Your task to perform on an android device: make emails show in primary in the gmail app Image 0: 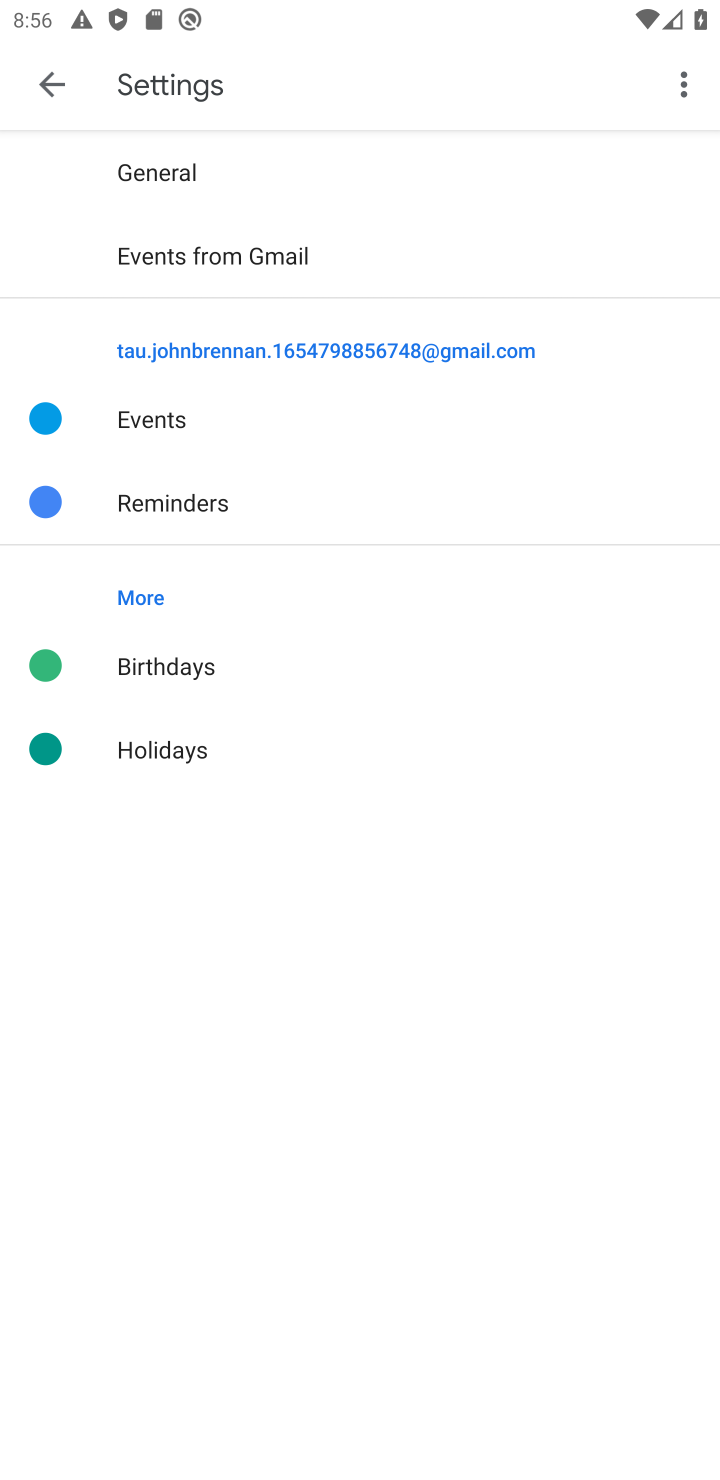
Step 0: press home button
Your task to perform on an android device: make emails show in primary in the gmail app Image 1: 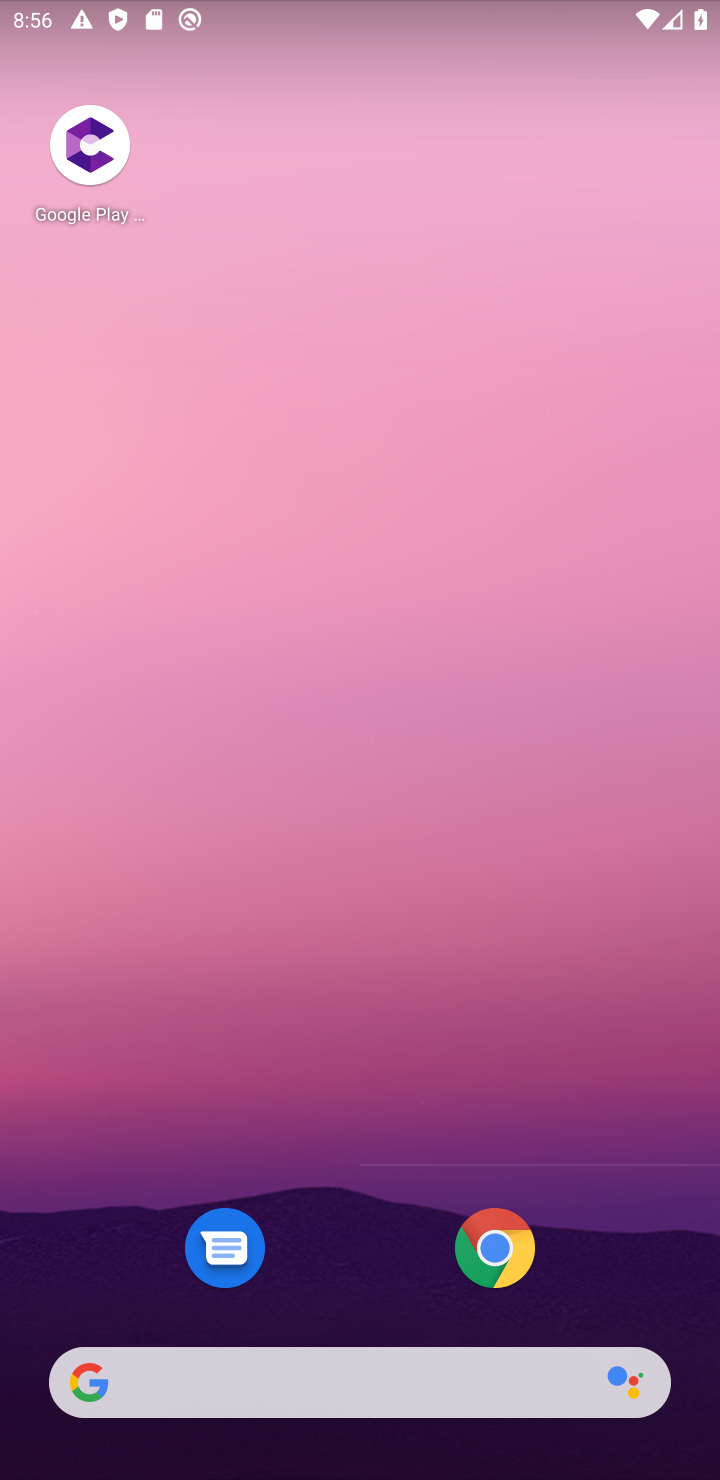
Step 1: click (282, 492)
Your task to perform on an android device: make emails show in primary in the gmail app Image 2: 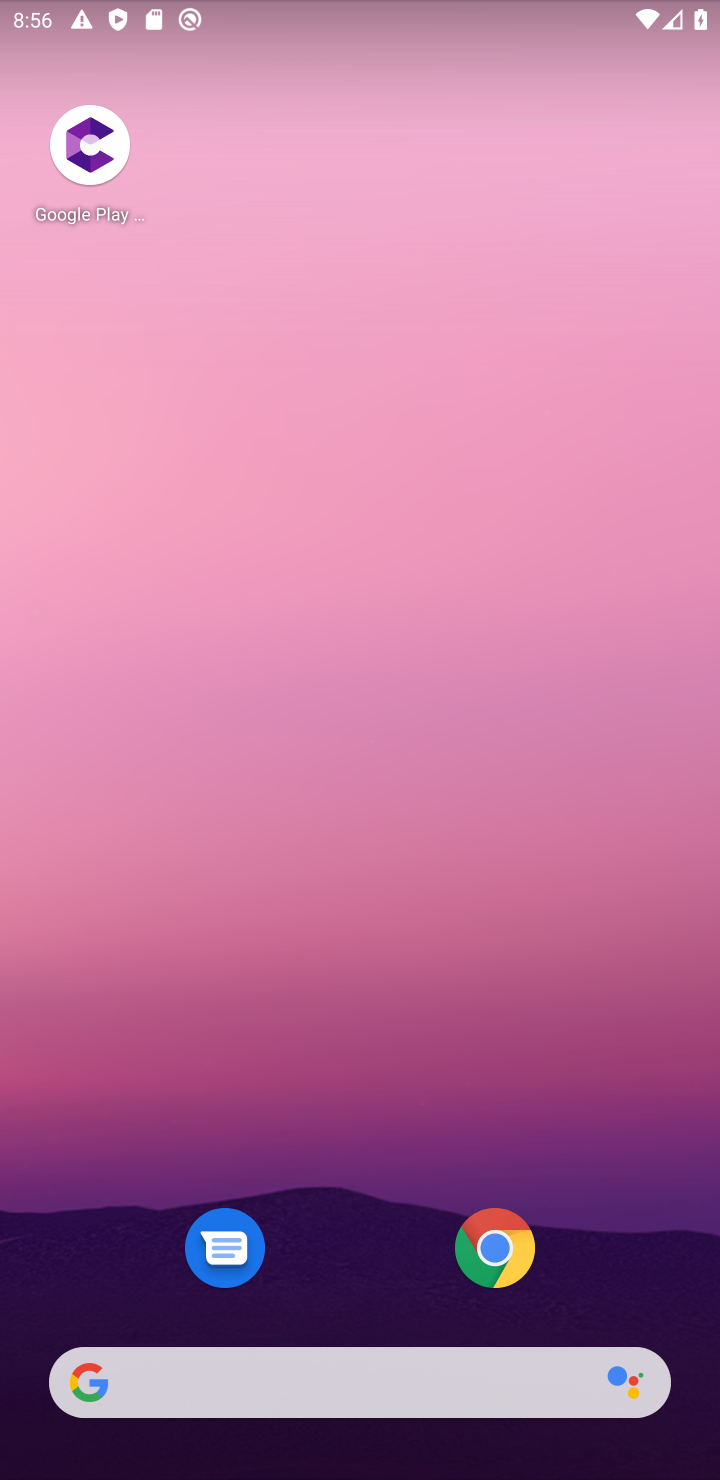
Step 2: drag from (290, 1330) to (290, 350)
Your task to perform on an android device: make emails show in primary in the gmail app Image 3: 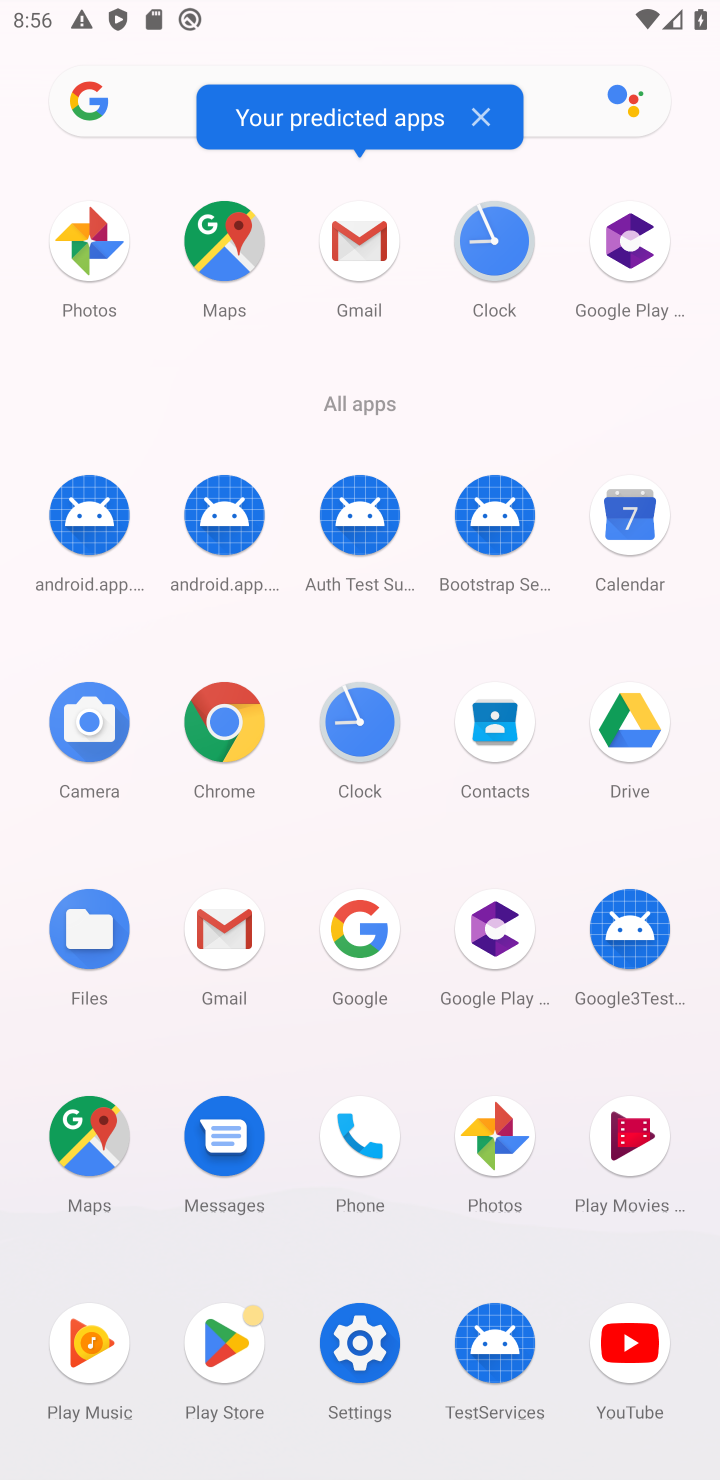
Step 3: click (359, 242)
Your task to perform on an android device: make emails show in primary in the gmail app Image 4: 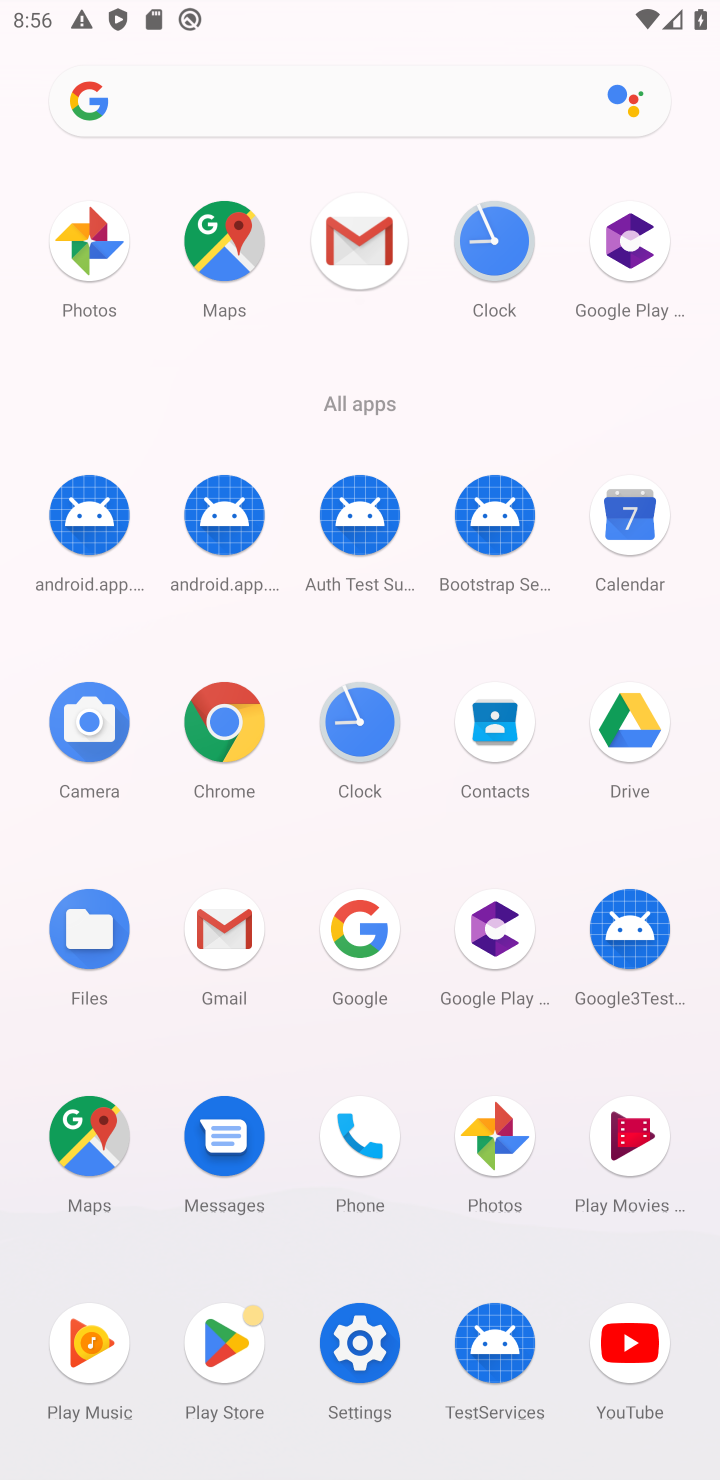
Step 4: click (359, 242)
Your task to perform on an android device: make emails show in primary in the gmail app Image 5: 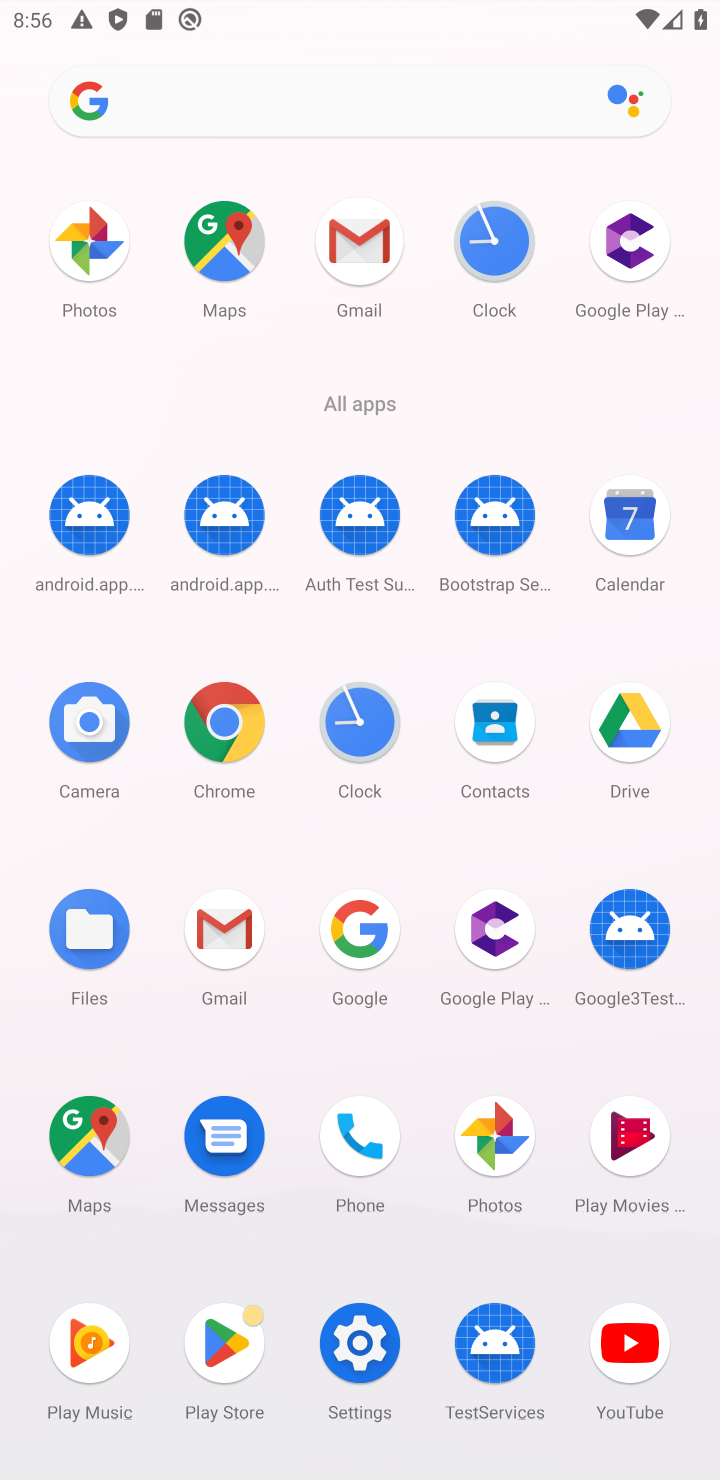
Step 5: click (359, 250)
Your task to perform on an android device: make emails show in primary in the gmail app Image 6: 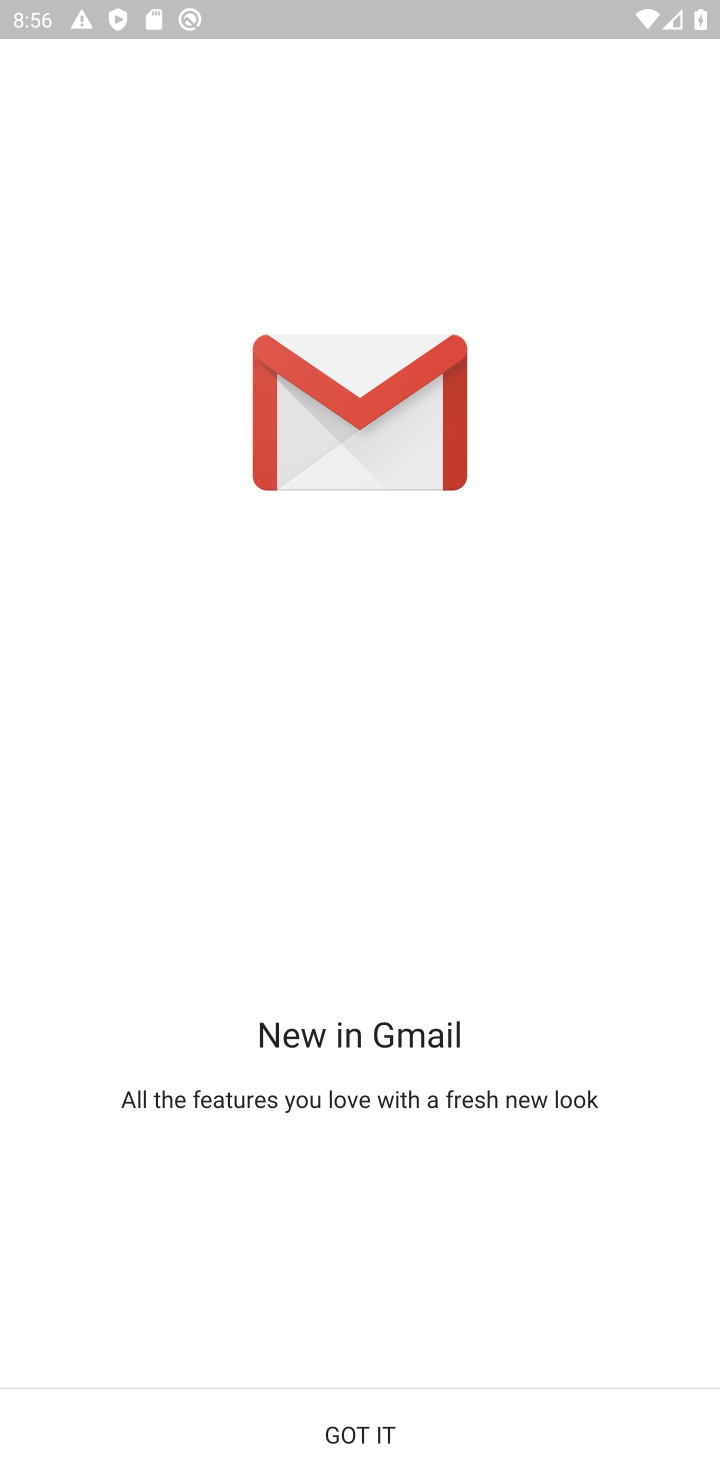
Step 6: click (301, 1472)
Your task to perform on an android device: make emails show in primary in the gmail app Image 7: 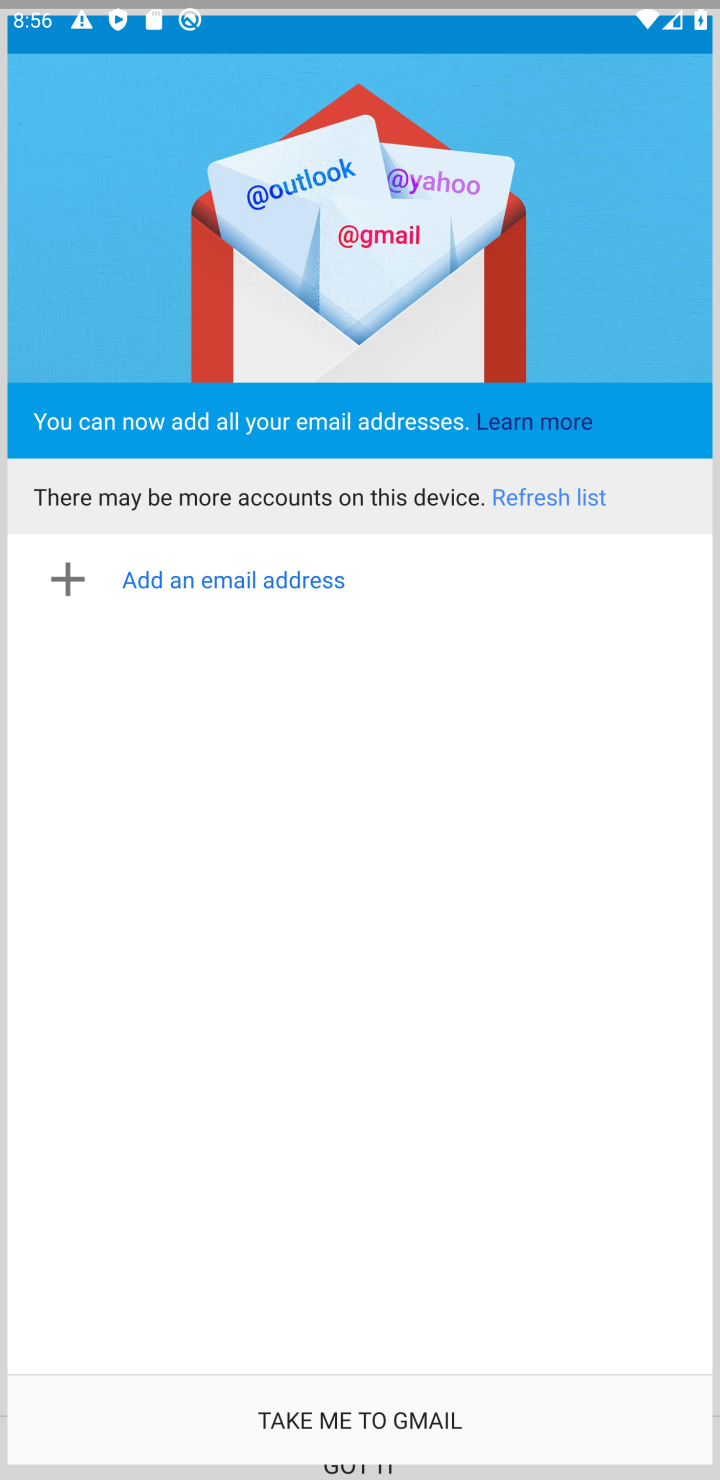
Step 7: click (294, 1455)
Your task to perform on an android device: make emails show in primary in the gmail app Image 8: 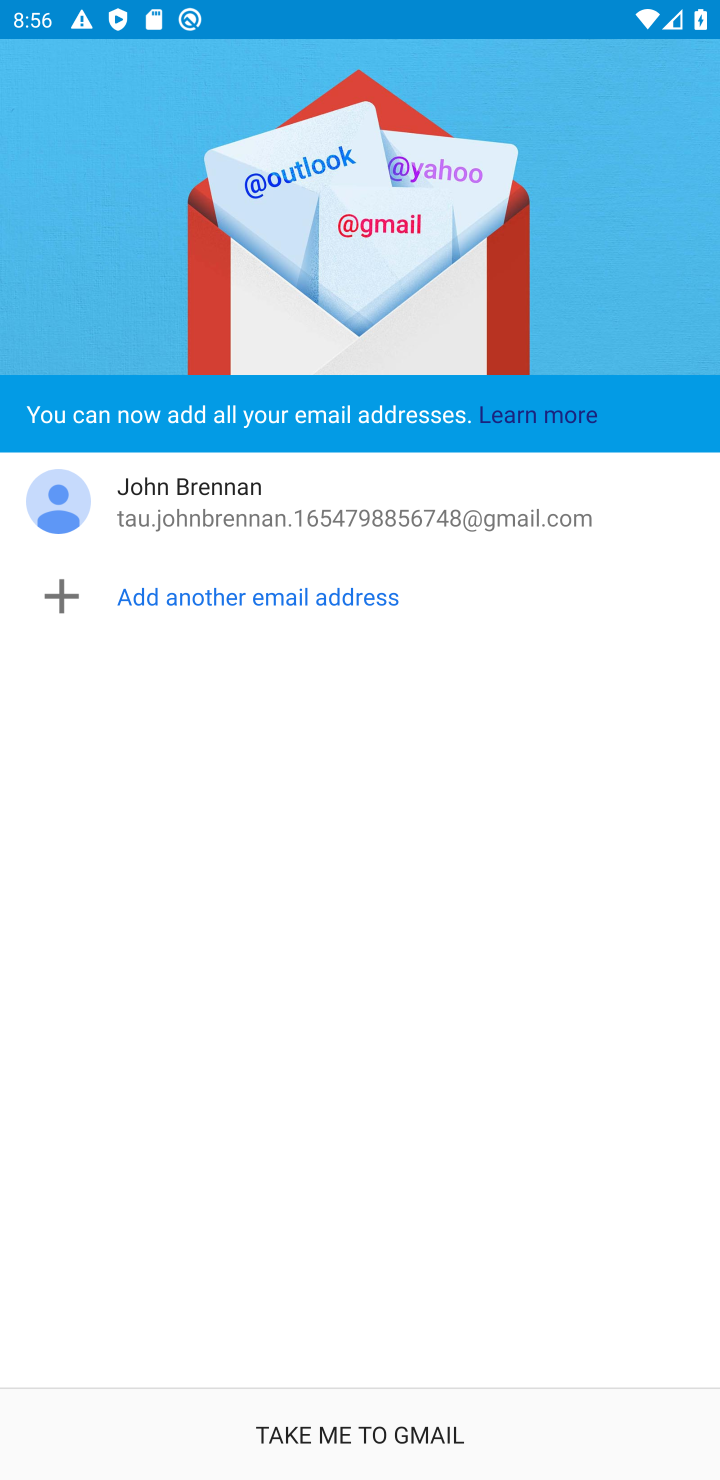
Step 8: click (294, 1455)
Your task to perform on an android device: make emails show in primary in the gmail app Image 9: 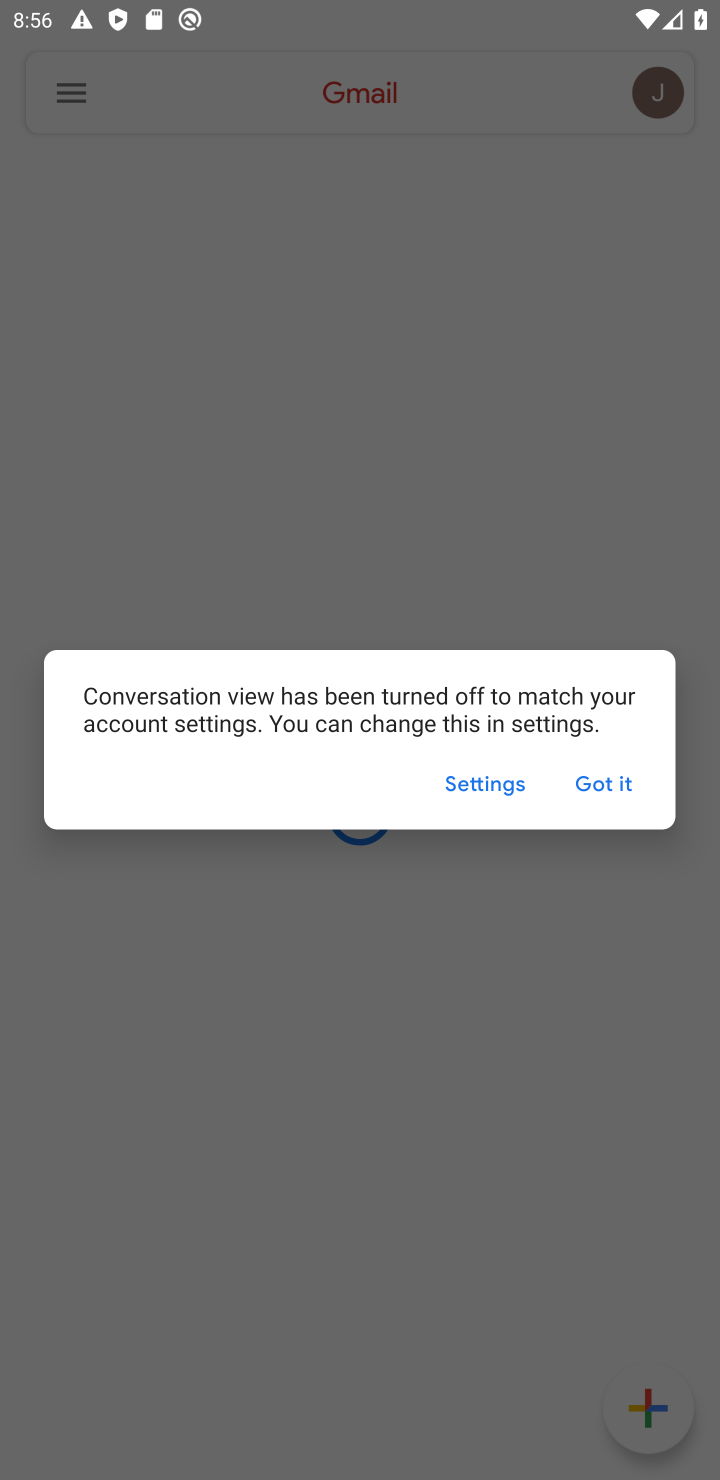
Step 9: click (57, 103)
Your task to perform on an android device: make emails show in primary in the gmail app Image 10: 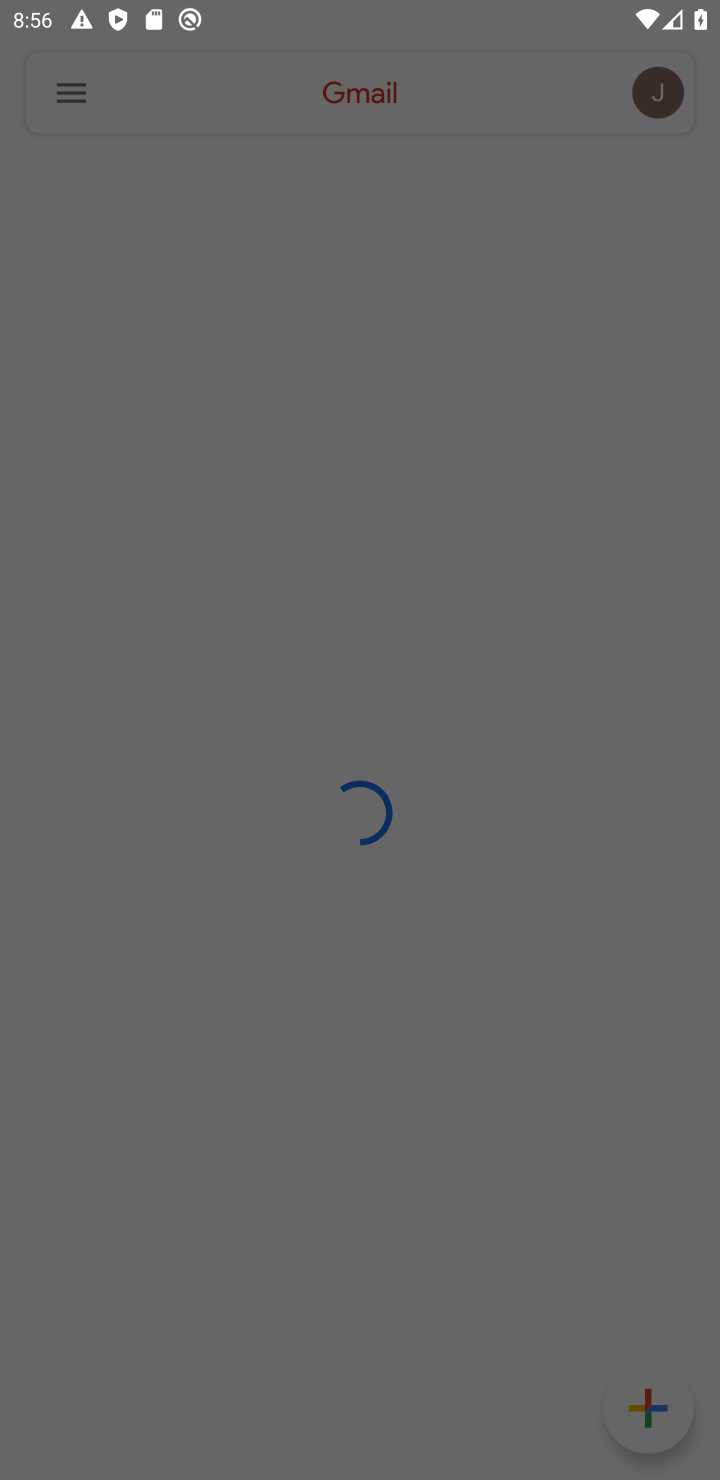
Step 10: click (601, 785)
Your task to perform on an android device: make emails show in primary in the gmail app Image 11: 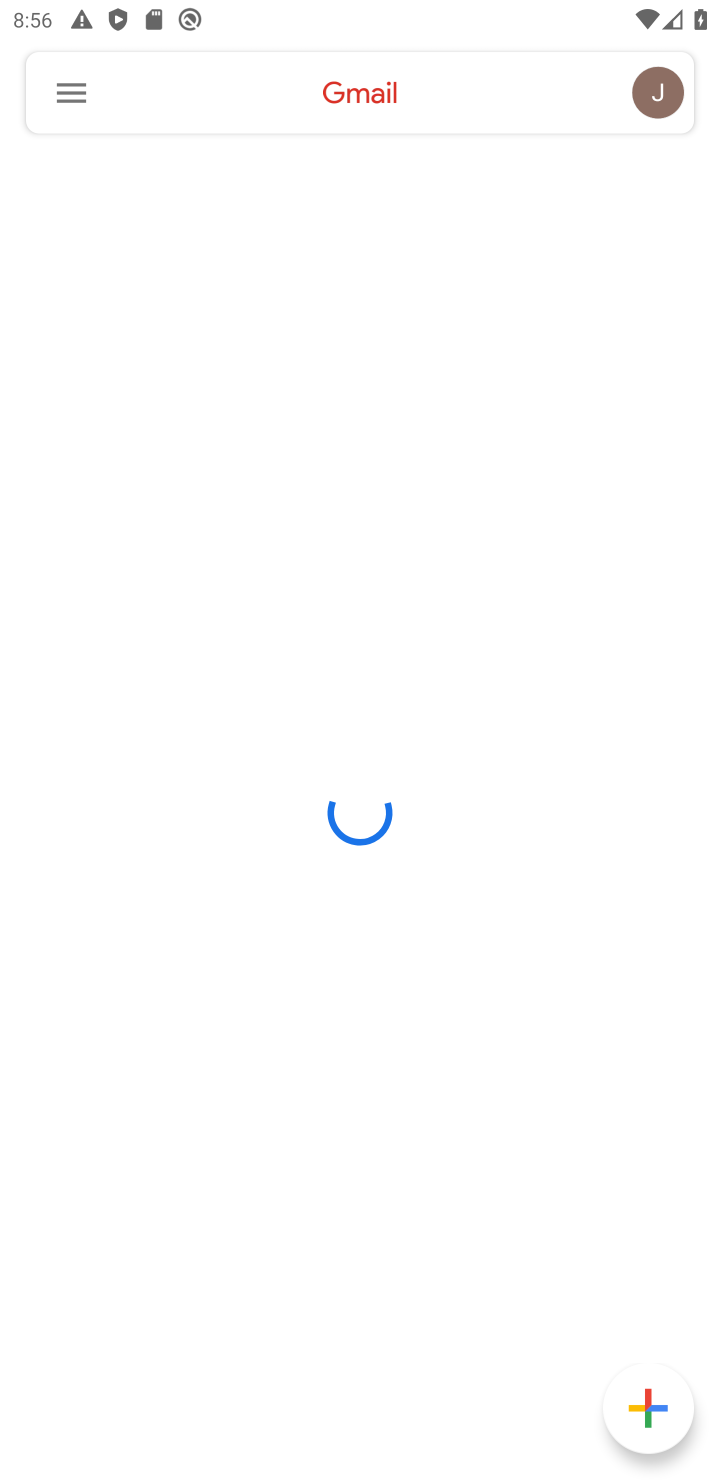
Step 11: click (54, 80)
Your task to perform on an android device: make emails show in primary in the gmail app Image 12: 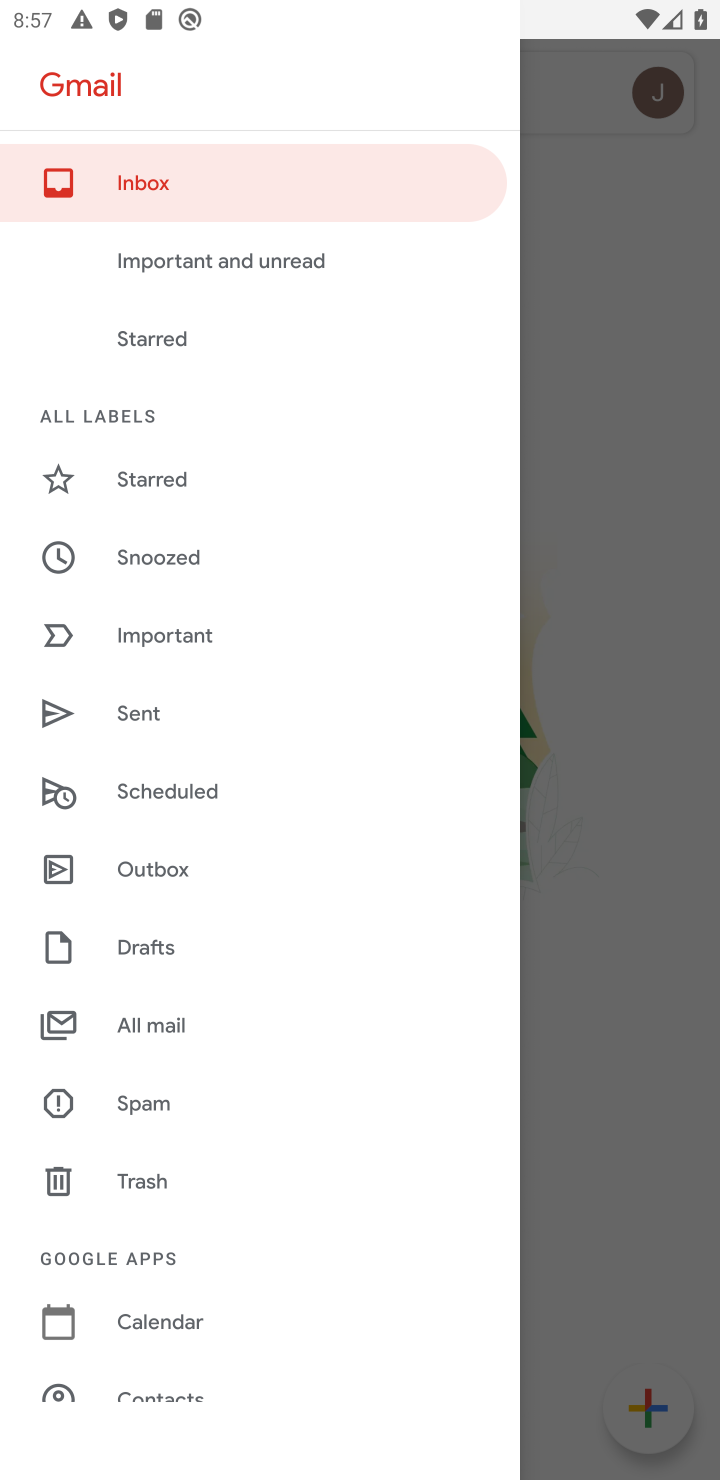
Step 12: drag from (55, 1390) to (162, 513)
Your task to perform on an android device: make emails show in primary in the gmail app Image 13: 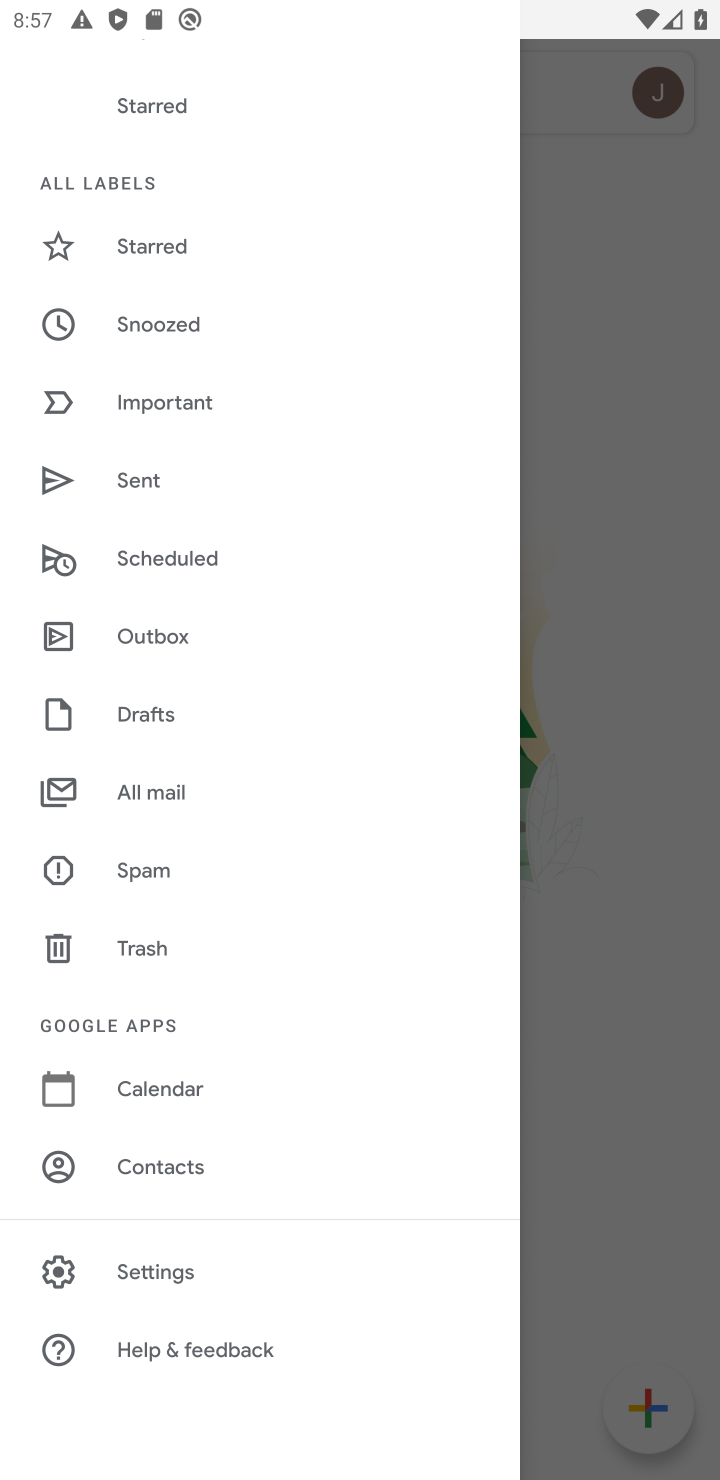
Step 13: click (134, 1291)
Your task to perform on an android device: make emails show in primary in the gmail app Image 14: 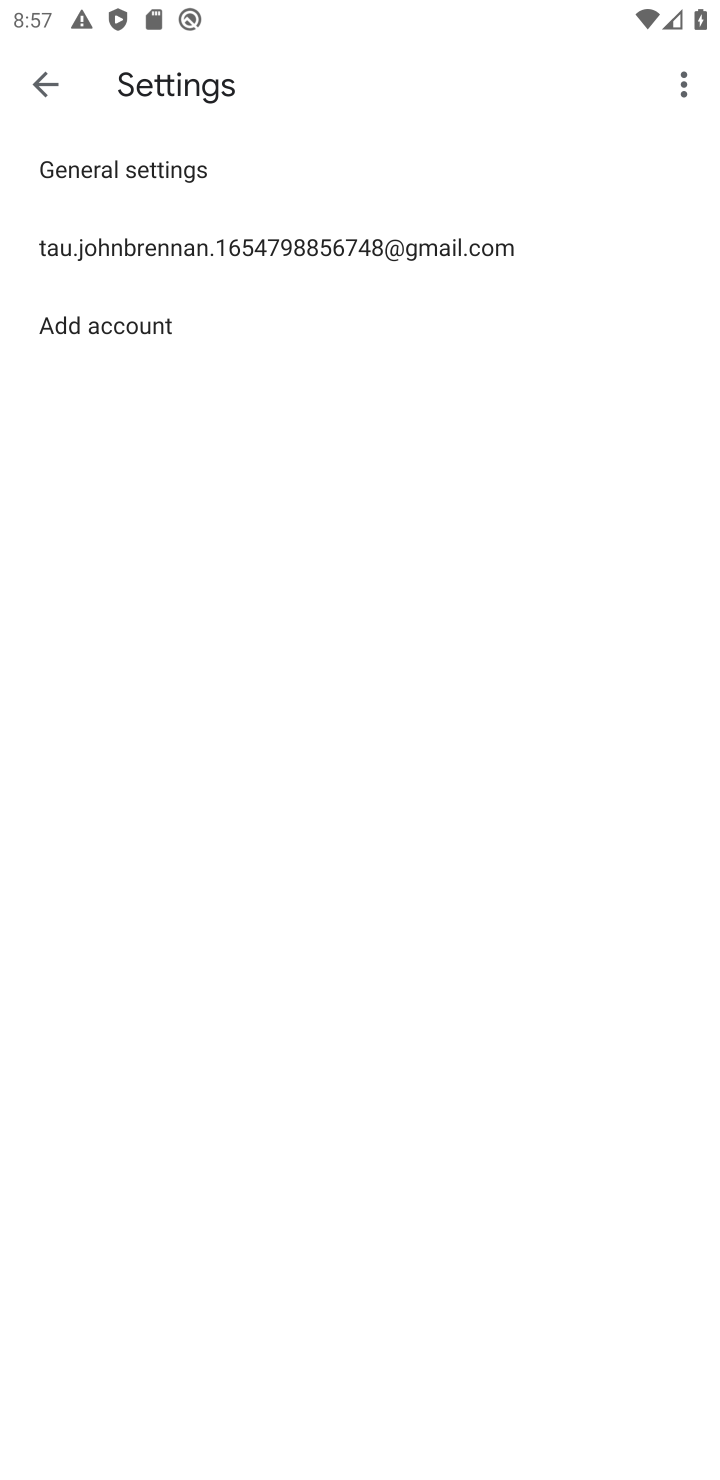
Step 14: click (71, 243)
Your task to perform on an android device: make emails show in primary in the gmail app Image 15: 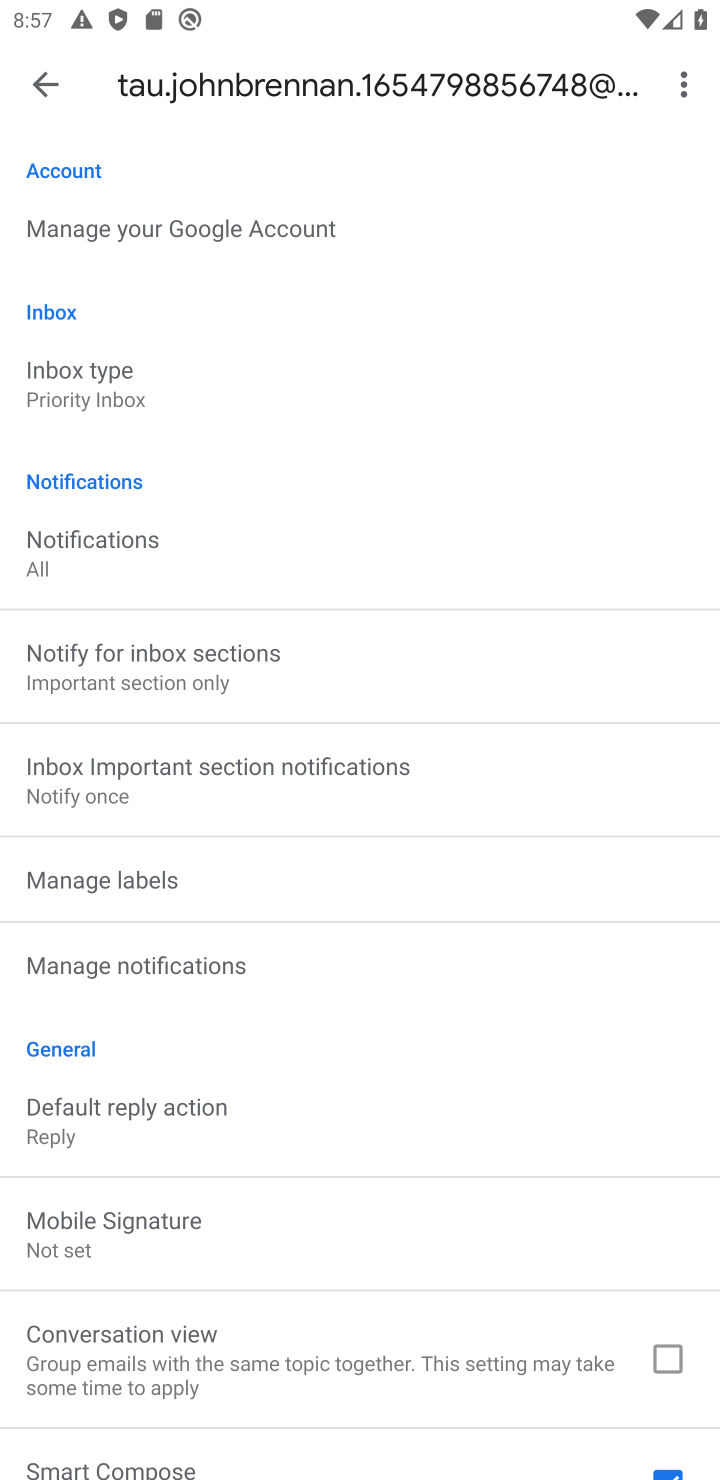
Step 15: click (92, 393)
Your task to perform on an android device: make emails show in primary in the gmail app Image 16: 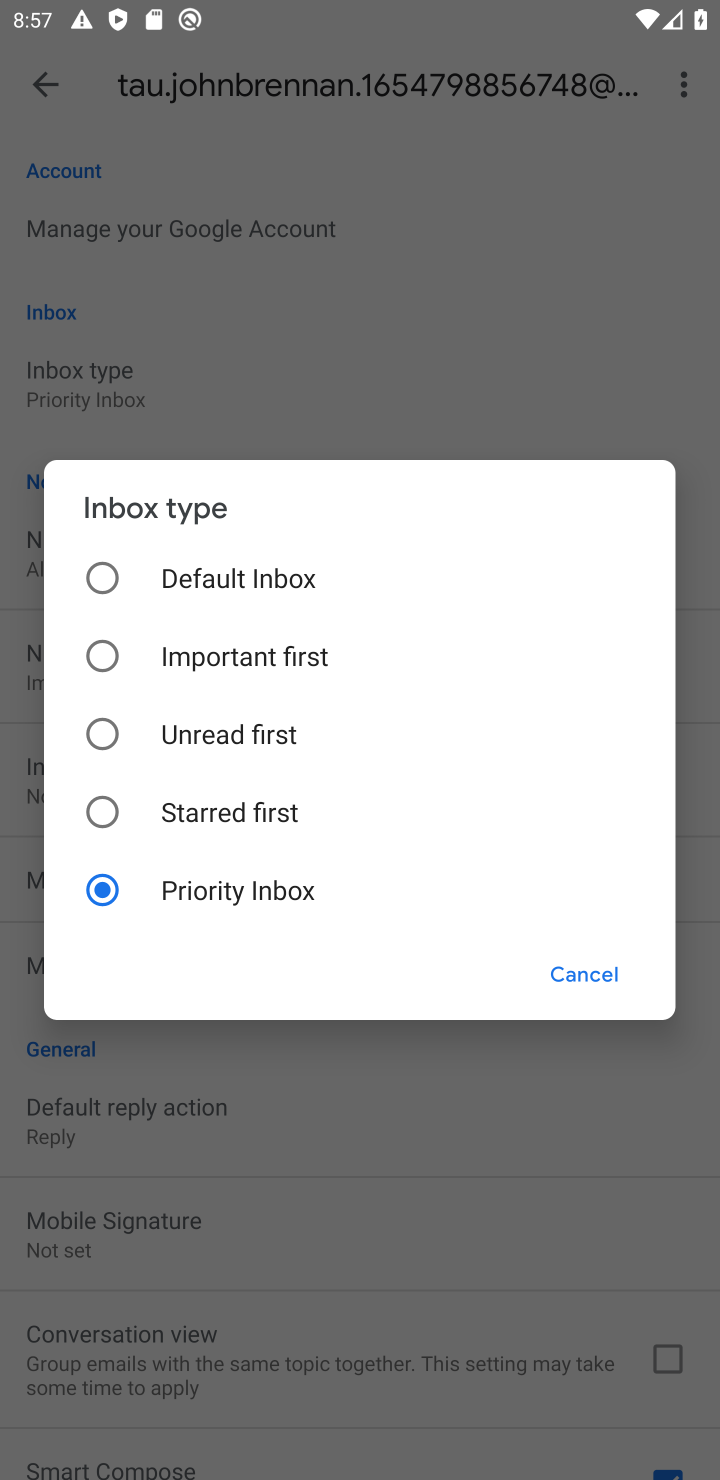
Step 16: click (153, 573)
Your task to perform on an android device: make emails show in primary in the gmail app Image 17: 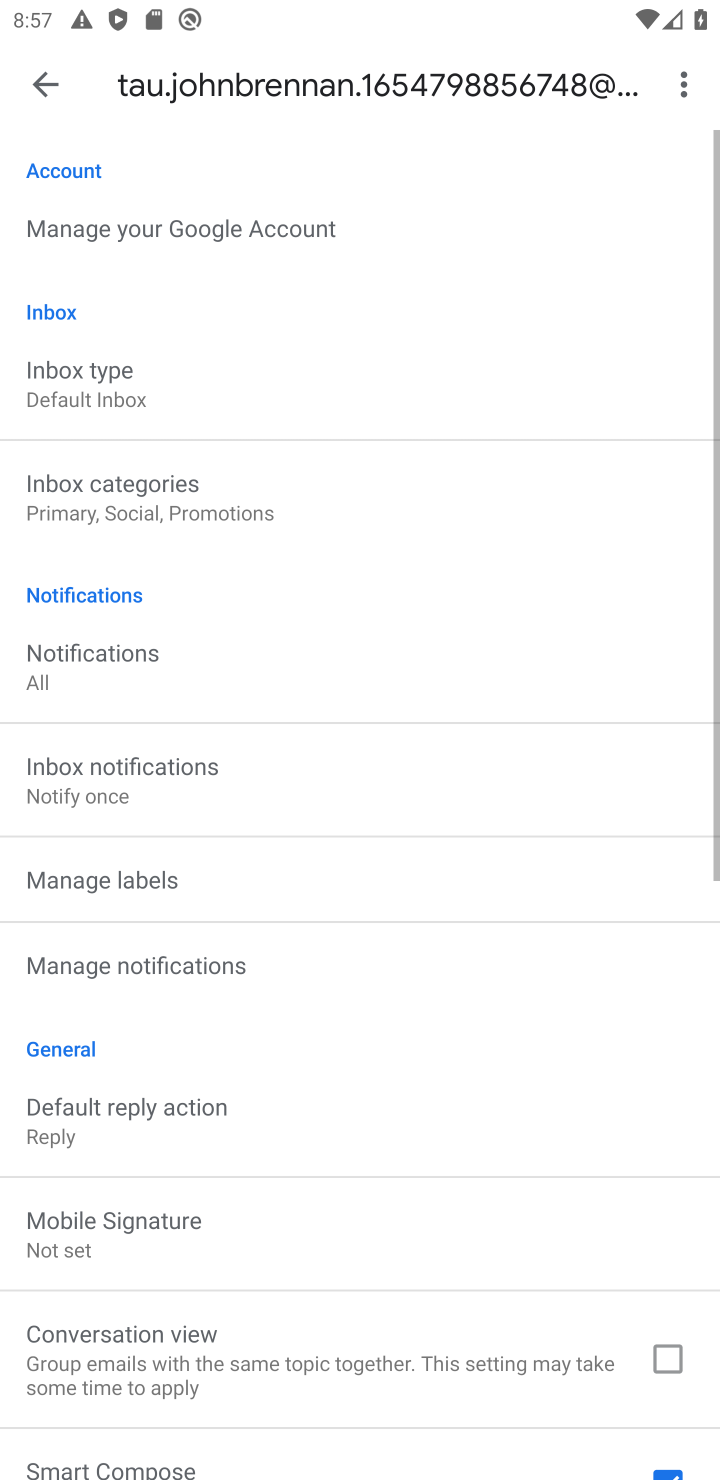
Step 17: click (101, 527)
Your task to perform on an android device: make emails show in primary in the gmail app Image 18: 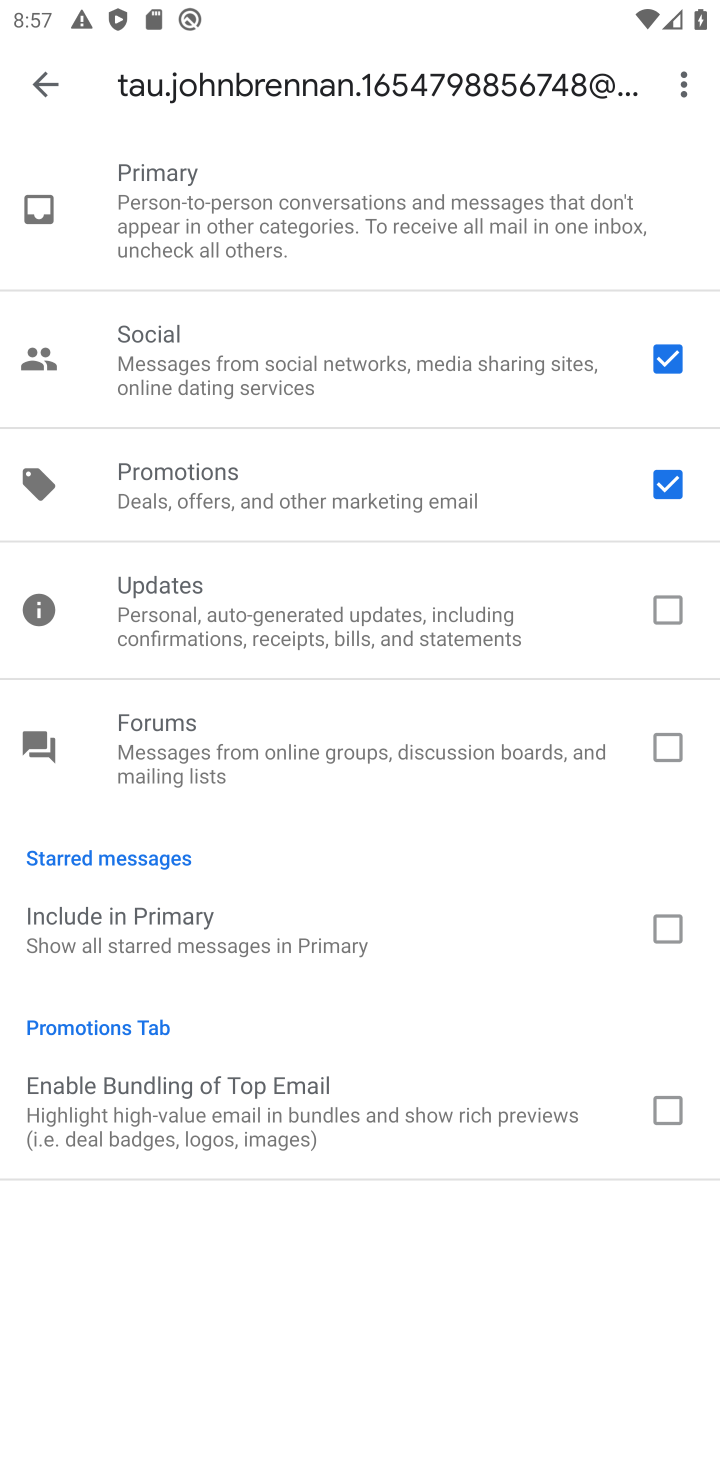
Step 18: click (664, 486)
Your task to perform on an android device: make emails show in primary in the gmail app Image 19: 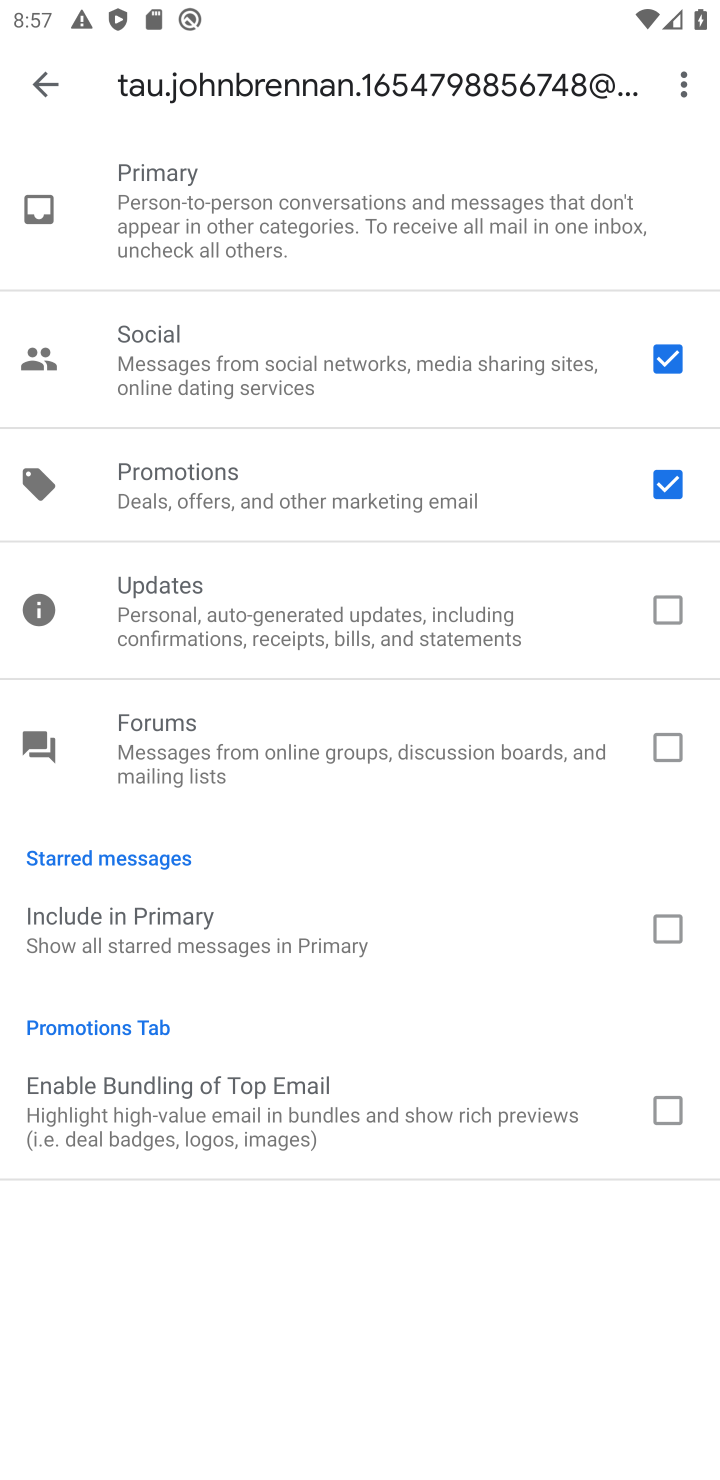
Step 19: click (656, 364)
Your task to perform on an android device: make emails show in primary in the gmail app Image 20: 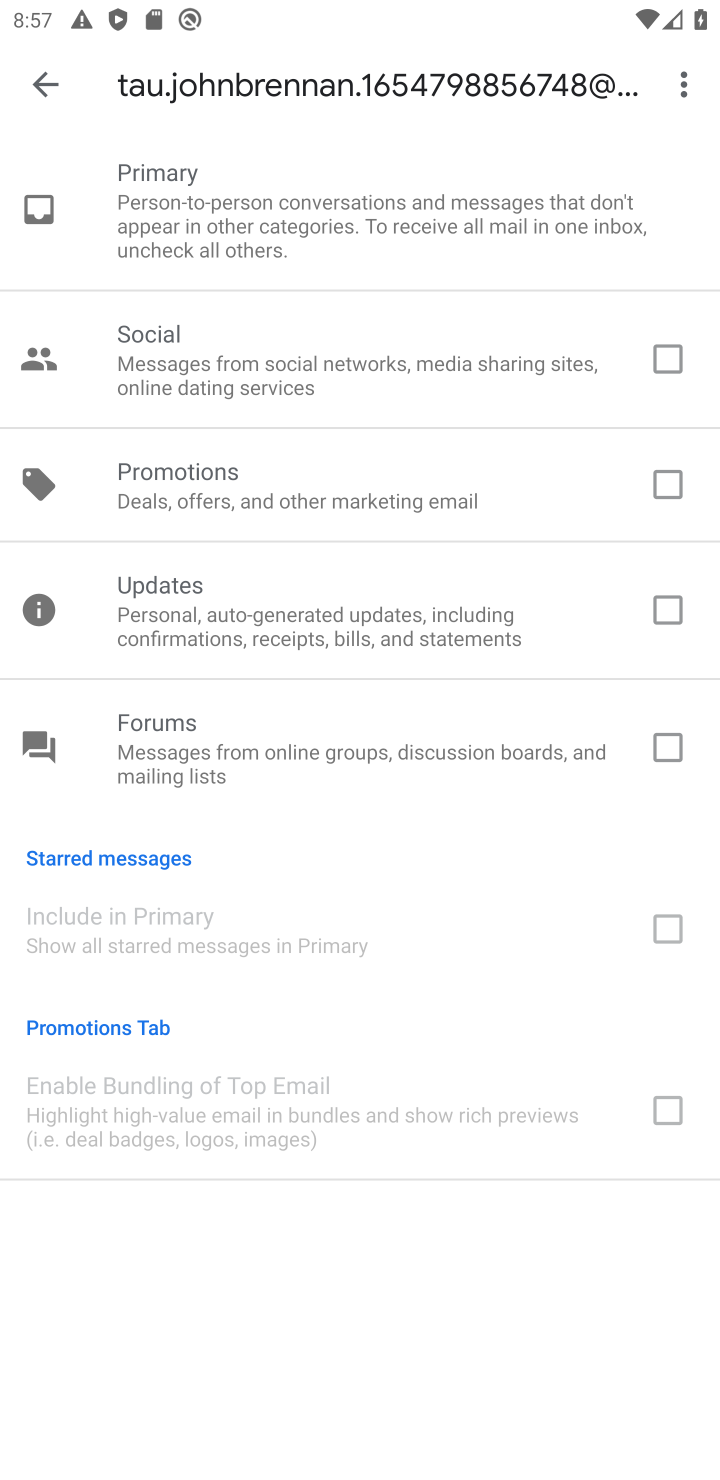
Step 20: click (42, 79)
Your task to perform on an android device: make emails show in primary in the gmail app Image 21: 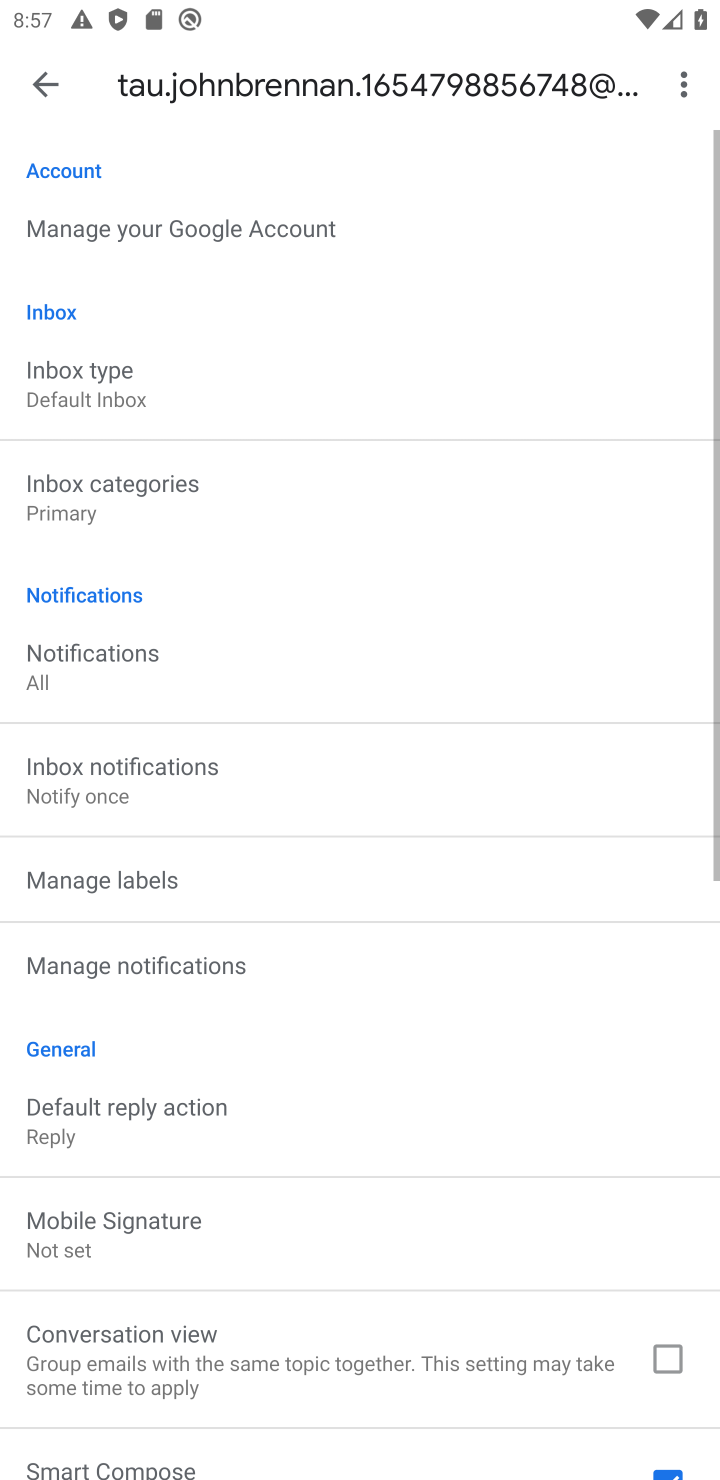
Step 21: task complete